Your task to perform on an android device: turn vacation reply on in the gmail app Image 0: 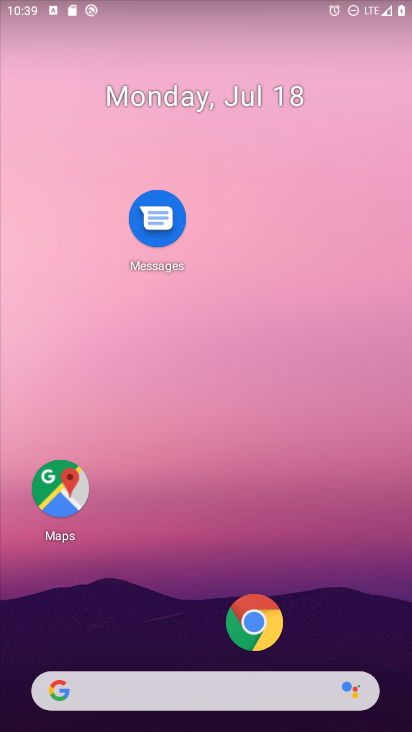
Step 0: drag from (235, 657) to (238, 170)
Your task to perform on an android device: turn vacation reply on in the gmail app Image 1: 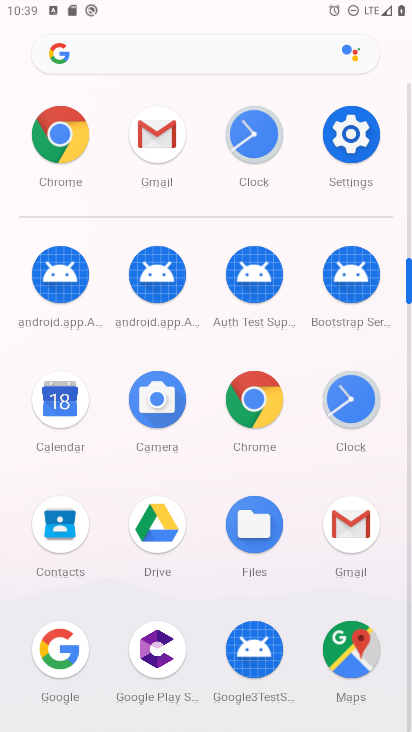
Step 1: click (351, 553)
Your task to perform on an android device: turn vacation reply on in the gmail app Image 2: 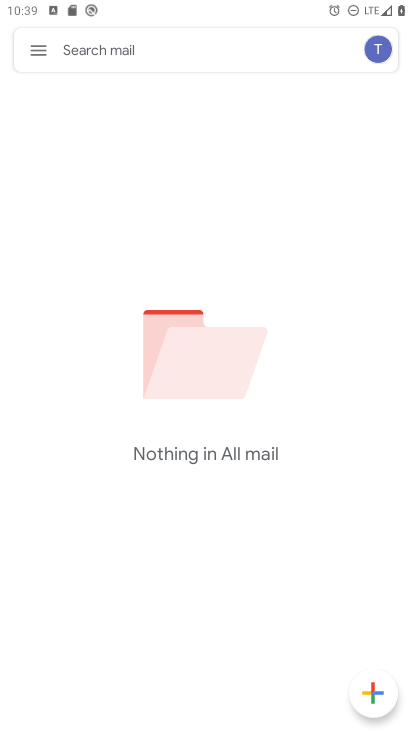
Step 2: click (42, 62)
Your task to perform on an android device: turn vacation reply on in the gmail app Image 3: 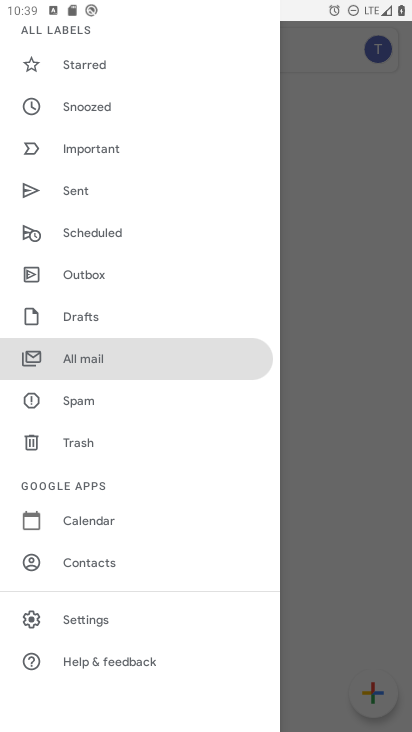
Step 3: click (123, 634)
Your task to perform on an android device: turn vacation reply on in the gmail app Image 4: 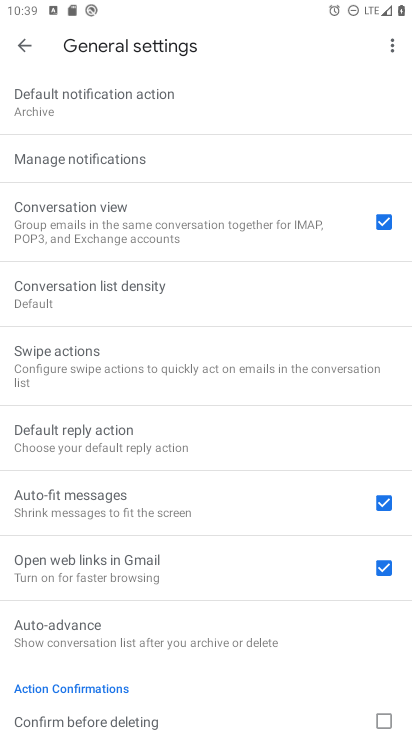
Step 4: drag from (143, 647) to (247, 137)
Your task to perform on an android device: turn vacation reply on in the gmail app Image 5: 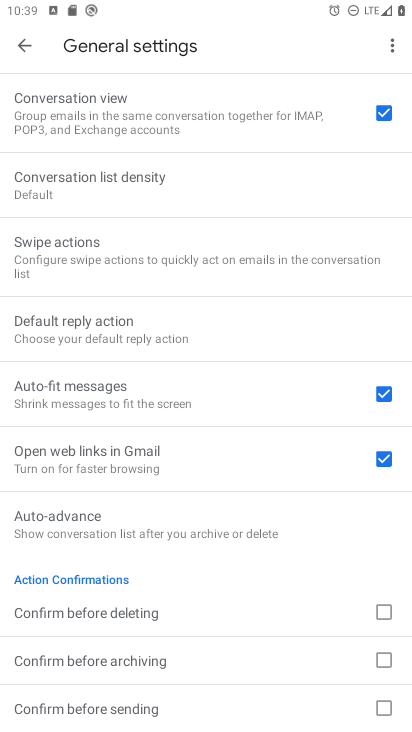
Step 5: drag from (233, 655) to (268, 298)
Your task to perform on an android device: turn vacation reply on in the gmail app Image 6: 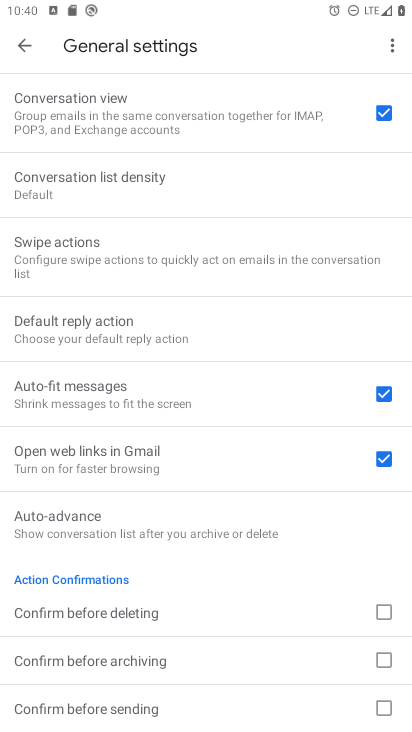
Step 6: drag from (227, 318) to (230, 553)
Your task to perform on an android device: turn vacation reply on in the gmail app Image 7: 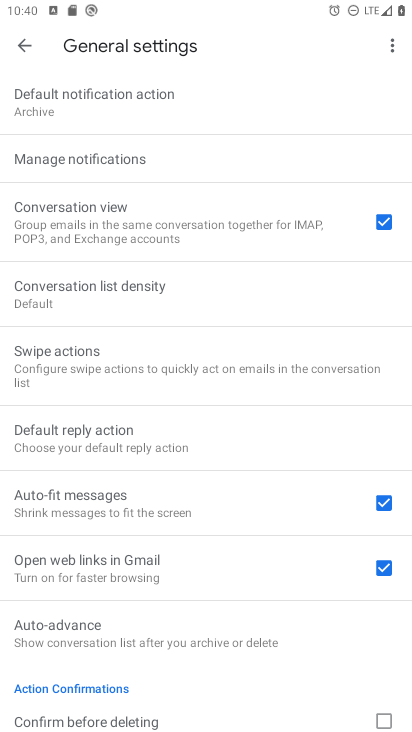
Step 7: drag from (170, 243) to (168, 562)
Your task to perform on an android device: turn vacation reply on in the gmail app Image 8: 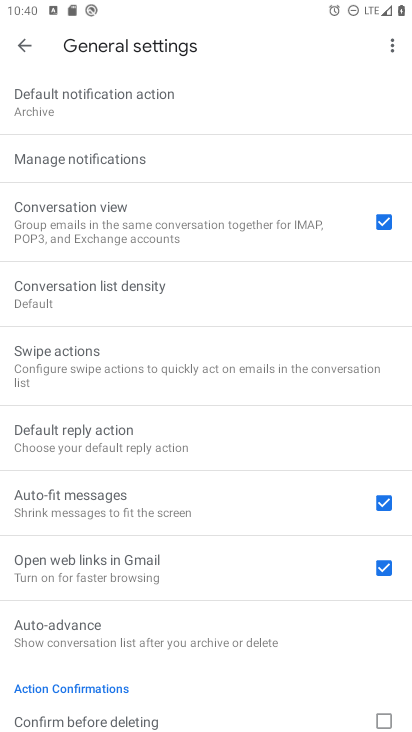
Step 8: click (31, 52)
Your task to perform on an android device: turn vacation reply on in the gmail app Image 9: 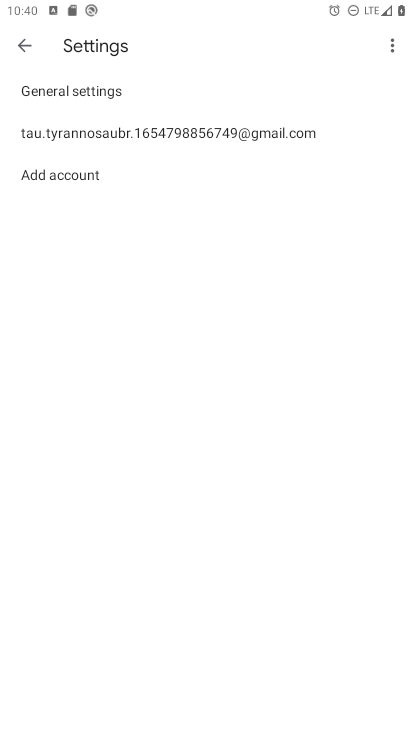
Step 9: click (137, 138)
Your task to perform on an android device: turn vacation reply on in the gmail app Image 10: 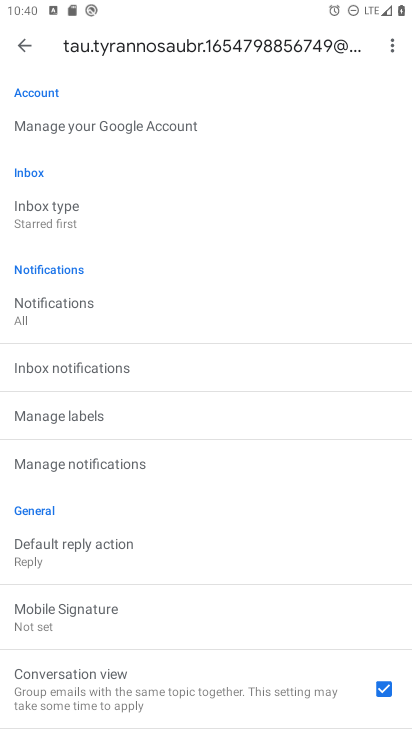
Step 10: drag from (182, 616) to (266, 65)
Your task to perform on an android device: turn vacation reply on in the gmail app Image 11: 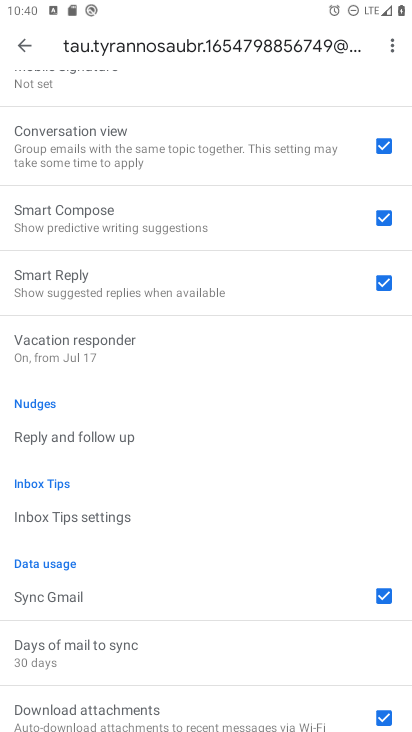
Step 11: click (149, 352)
Your task to perform on an android device: turn vacation reply on in the gmail app Image 12: 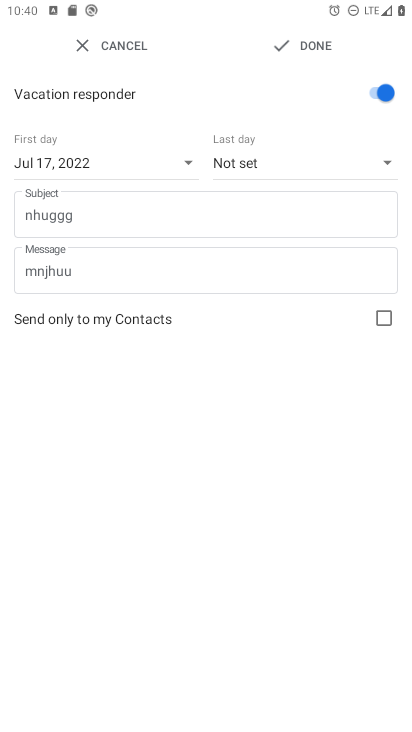
Step 12: task complete